Your task to perform on an android device: toggle wifi Image 0: 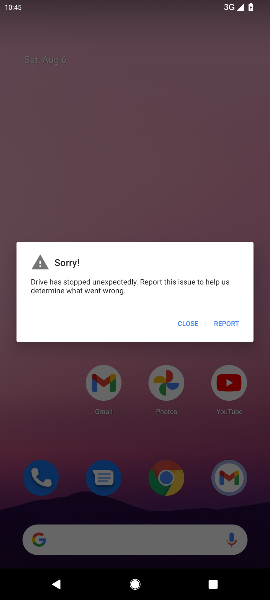
Step 0: press home button
Your task to perform on an android device: toggle wifi Image 1: 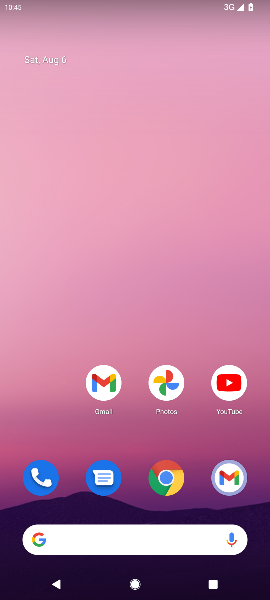
Step 1: drag from (135, 472) to (145, 113)
Your task to perform on an android device: toggle wifi Image 2: 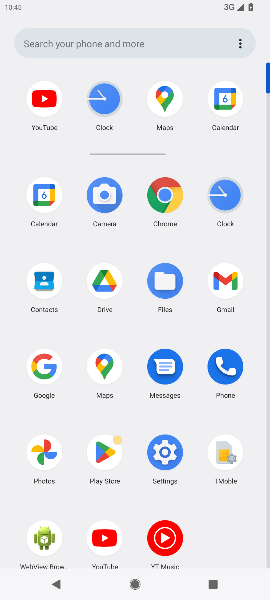
Step 2: click (167, 449)
Your task to perform on an android device: toggle wifi Image 3: 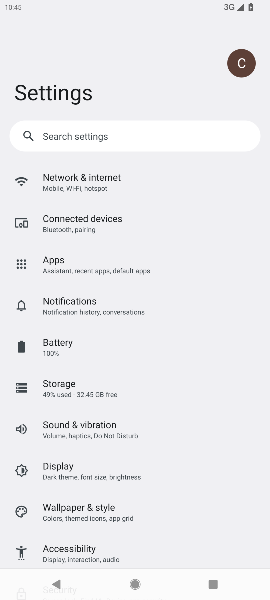
Step 3: click (86, 184)
Your task to perform on an android device: toggle wifi Image 4: 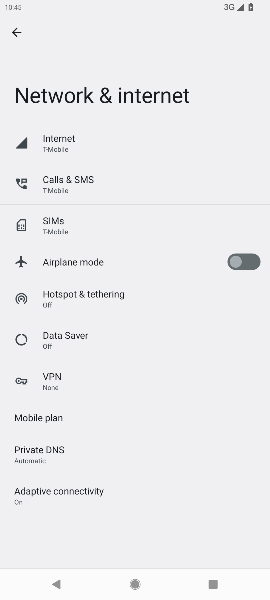
Step 4: click (55, 135)
Your task to perform on an android device: toggle wifi Image 5: 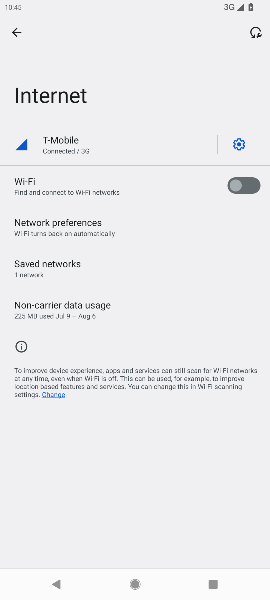
Step 5: click (250, 184)
Your task to perform on an android device: toggle wifi Image 6: 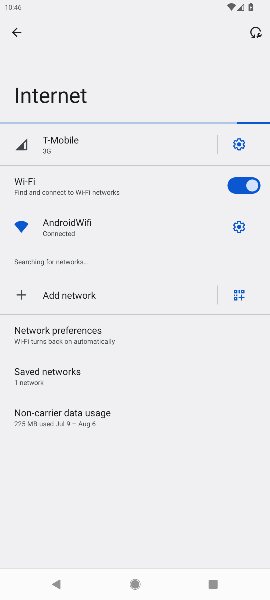
Step 6: task complete